Your task to perform on an android device: turn pop-ups off in chrome Image 0: 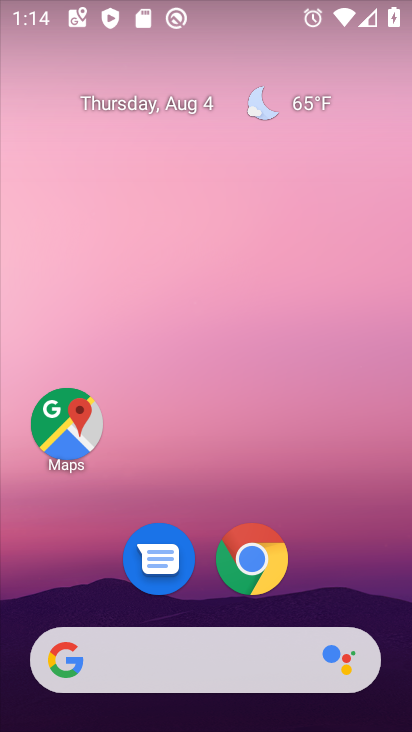
Step 0: press home button
Your task to perform on an android device: turn pop-ups off in chrome Image 1: 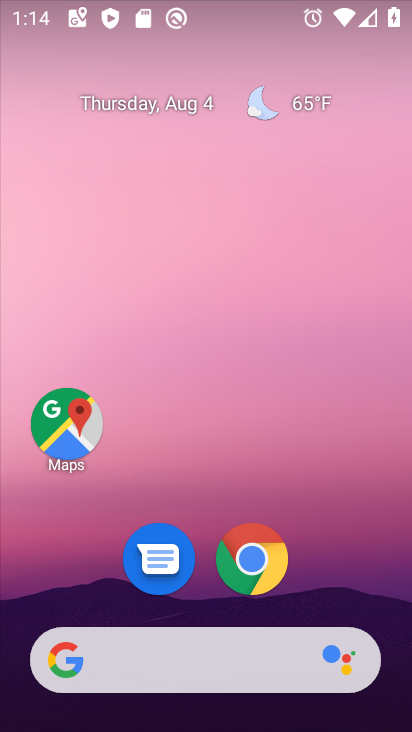
Step 1: click (249, 566)
Your task to perform on an android device: turn pop-ups off in chrome Image 2: 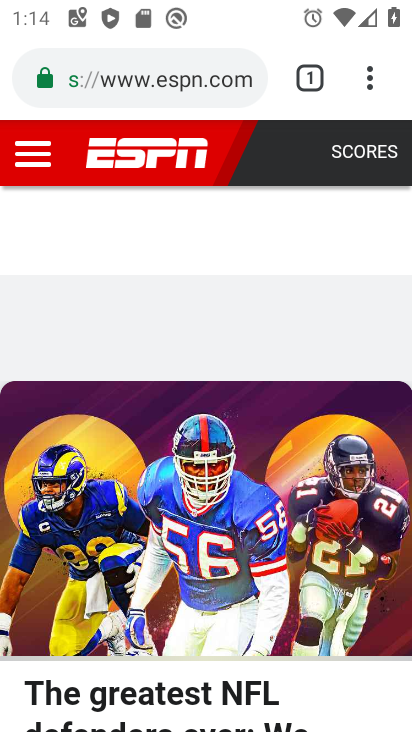
Step 2: click (368, 78)
Your task to perform on an android device: turn pop-ups off in chrome Image 3: 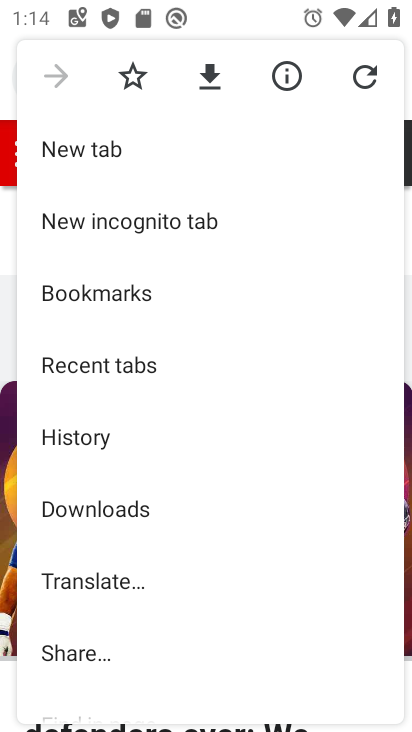
Step 3: drag from (113, 410) to (187, 290)
Your task to perform on an android device: turn pop-ups off in chrome Image 4: 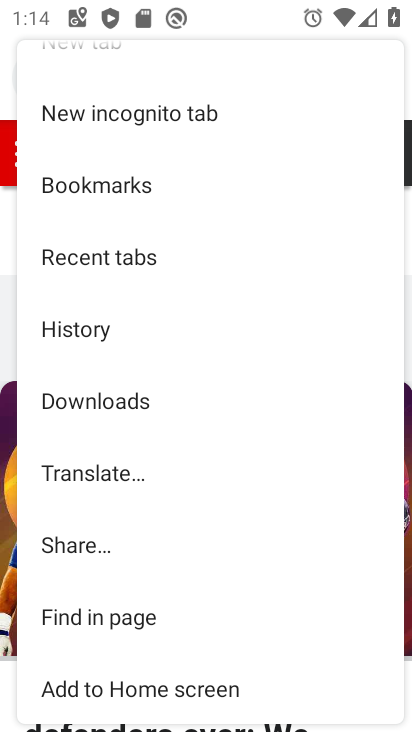
Step 4: drag from (92, 512) to (155, 420)
Your task to perform on an android device: turn pop-ups off in chrome Image 5: 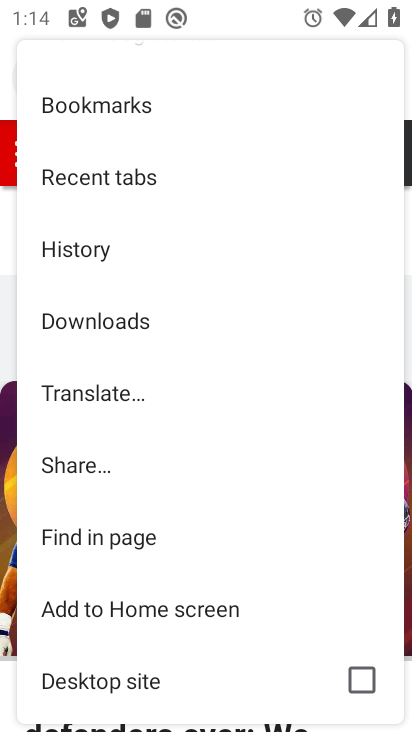
Step 5: drag from (109, 559) to (202, 407)
Your task to perform on an android device: turn pop-ups off in chrome Image 6: 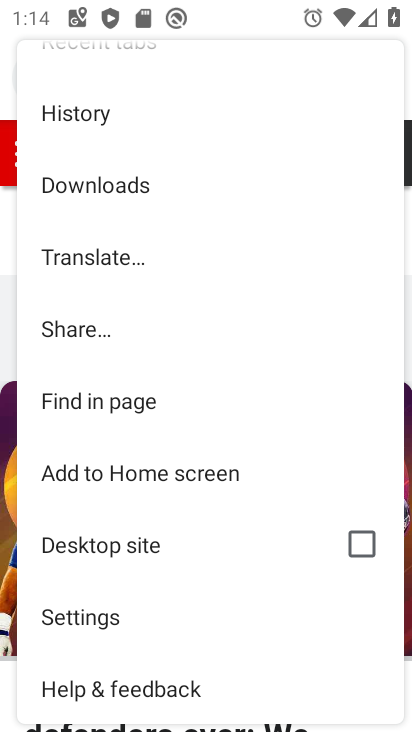
Step 6: drag from (101, 577) to (204, 356)
Your task to perform on an android device: turn pop-ups off in chrome Image 7: 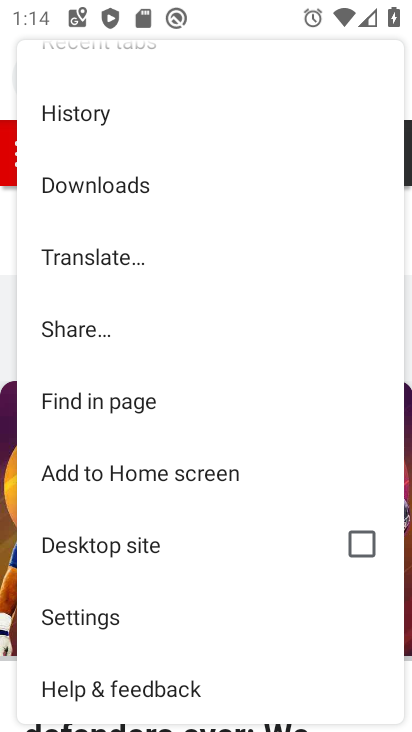
Step 7: click (94, 621)
Your task to perform on an android device: turn pop-ups off in chrome Image 8: 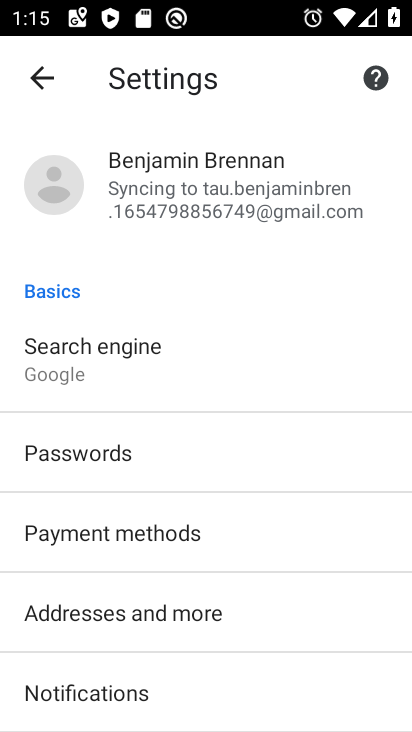
Step 8: drag from (141, 589) to (183, 480)
Your task to perform on an android device: turn pop-ups off in chrome Image 9: 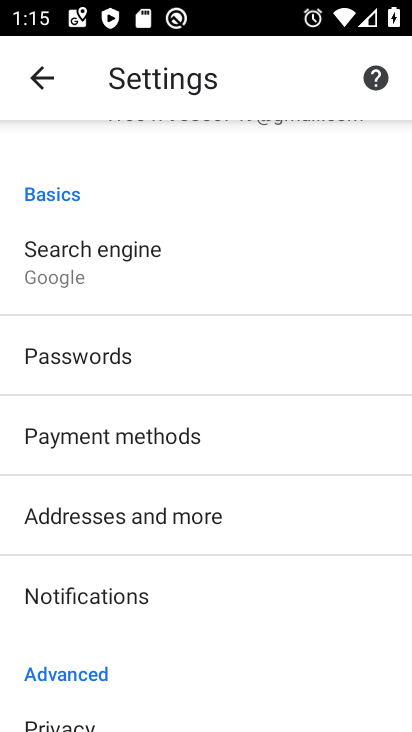
Step 9: drag from (183, 580) to (267, 465)
Your task to perform on an android device: turn pop-ups off in chrome Image 10: 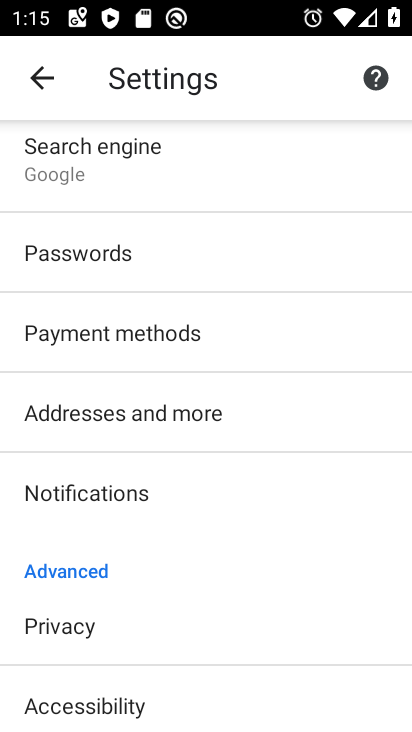
Step 10: drag from (177, 616) to (270, 492)
Your task to perform on an android device: turn pop-ups off in chrome Image 11: 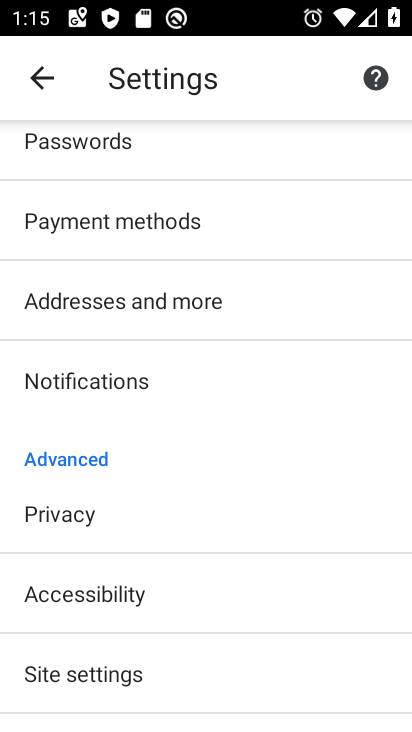
Step 11: drag from (179, 646) to (288, 520)
Your task to perform on an android device: turn pop-ups off in chrome Image 12: 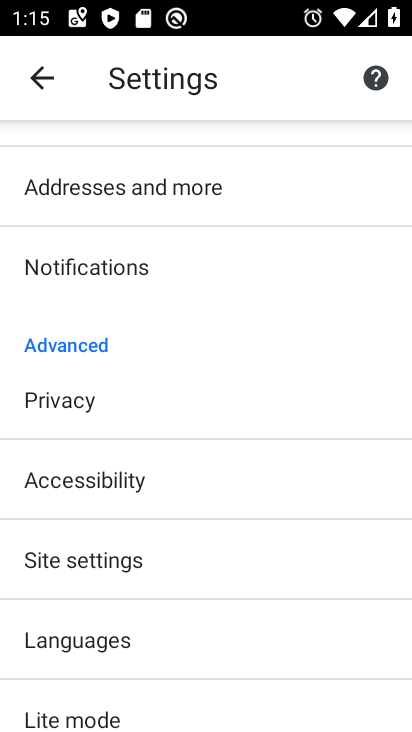
Step 12: click (96, 569)
Your task to perform on an android device: turn pop-ups off in chrome Image 13: 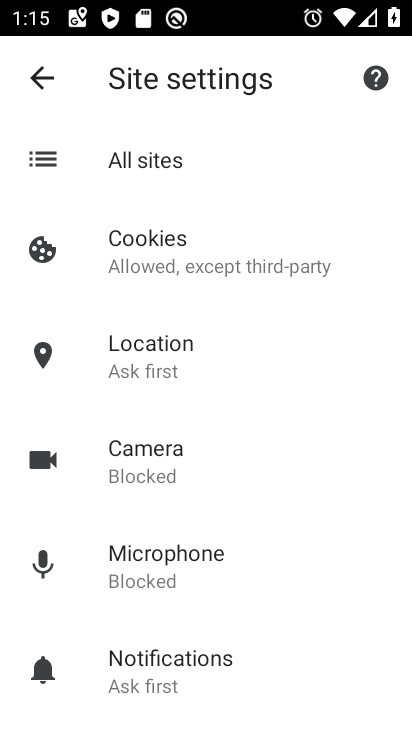
Step 13: drag from (173, 606) to (245, 512)
Your task to perform on an android device: turn pop-ups off in chrome Image 14: 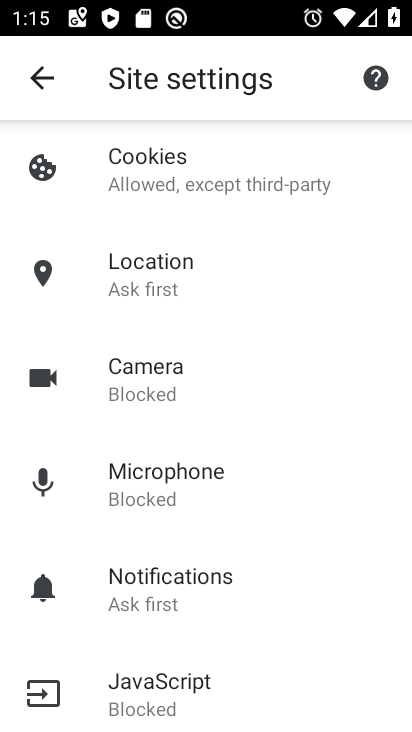
Step 14: drag from (175, 642) to (243, 526)
Your task to perform on an android device: turn pop-ups off in chrome Image 15: 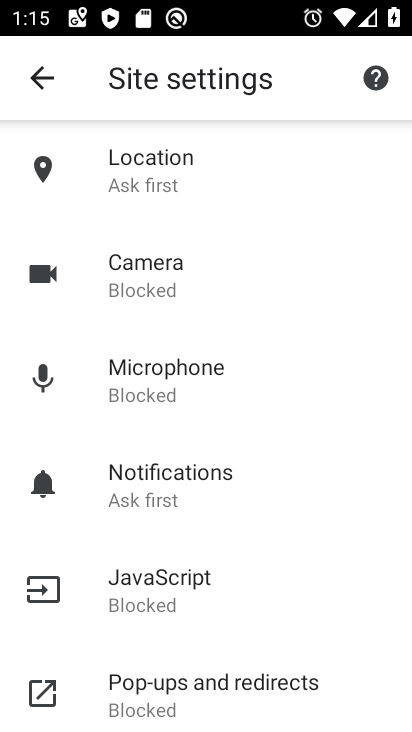
Step 15: drag from (165, 626) to (230, 524)
Your task to perform on an android device: turn pop-ups off in chrome Image 16: 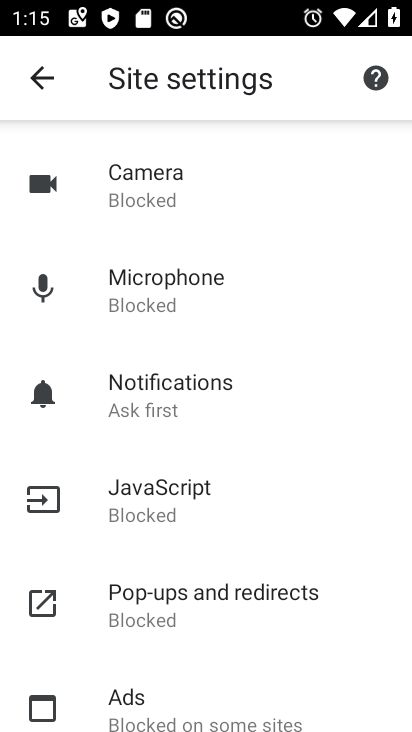
Step 16: click (248, 601)
Your task to perform on an android device: turn pop-ups off in chrome Image 17: 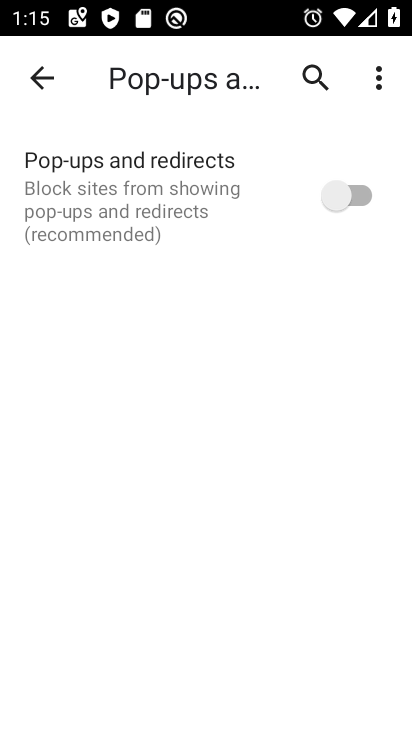
Step 17: task complete